Your task to perform on an android device: Do I have any events this weekend? Image 0: 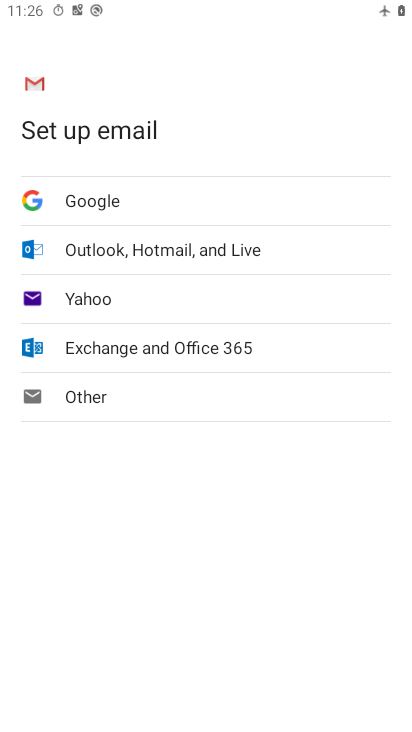
Step 0: press home button
Your task to perform on an android device: Do I have any events this weekend? Image 1: 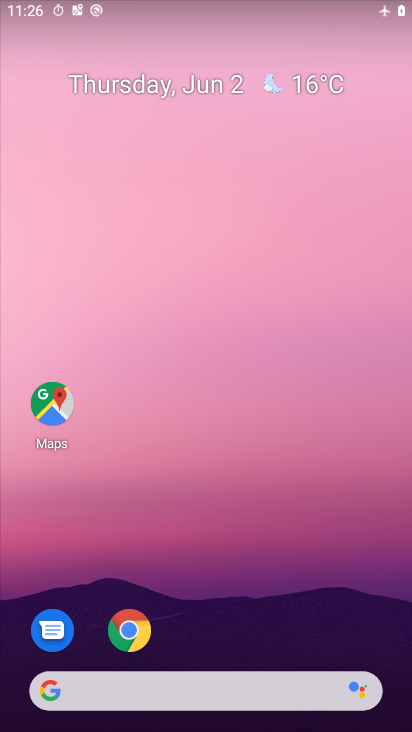
Step 1: drag from (225, 555) to (203, 0)
Your task to perform on an android device: Do I have any events this weekend? Image 2: 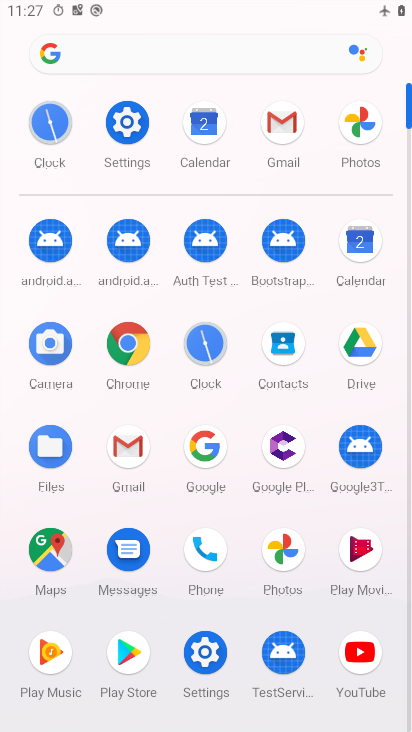
Step 2: click (357, 260)
Your task to perform on an android device: Do I have any events this weekend? Image 3: 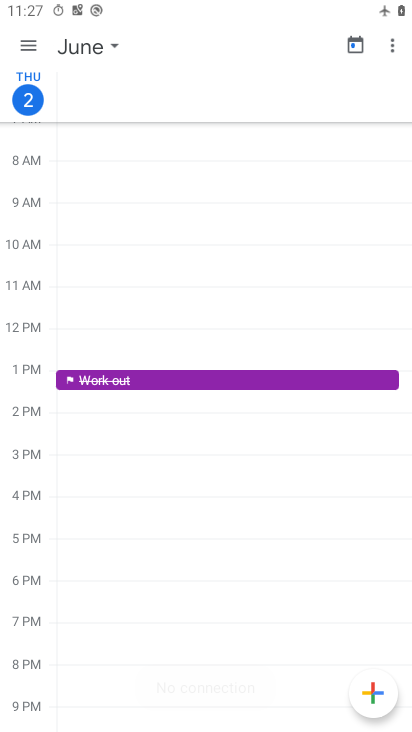
Step 3: click (34, 40)
Your task to perform on an android device: Do I have any events this weekend? Image 4: 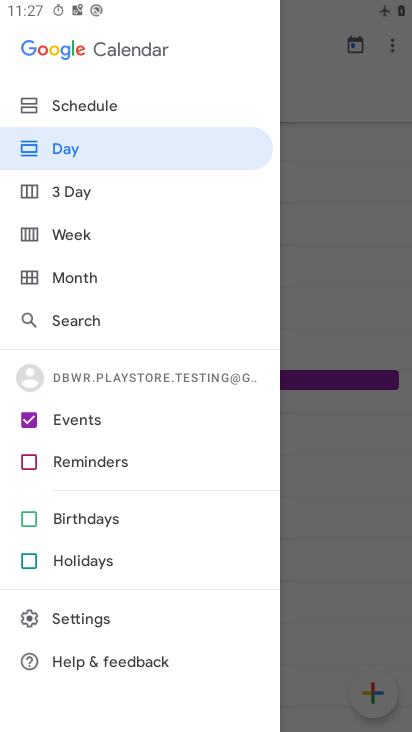
Step 4: click (83, 244)
Your task to perform on an android device: Do I have any events this weekend? Image 5: 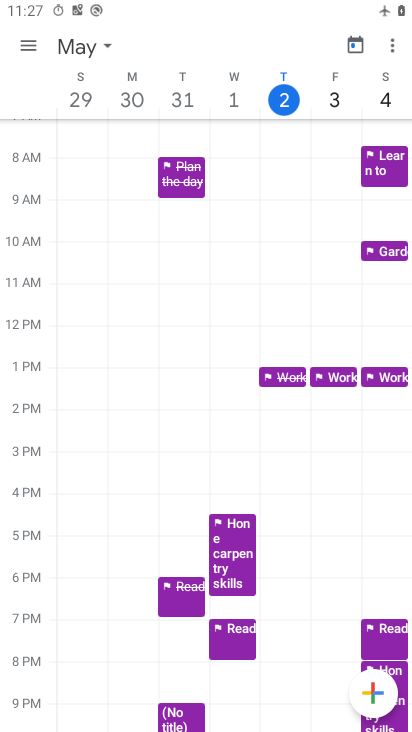
Step 5: task complete